Your task to perform on an android device: Open sound settings Image 0: 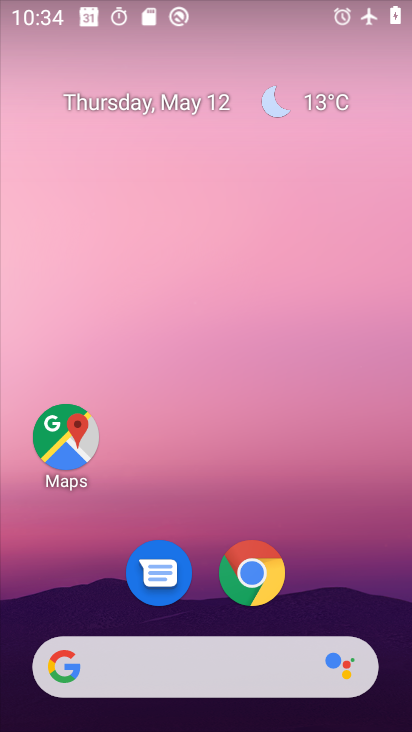
Step 0: click (366, 258)
Your task to perform on an android device: Open sound settings Image 1: 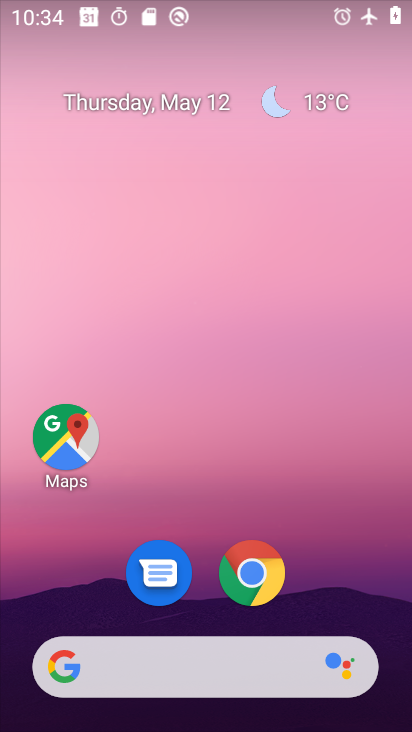
Step 1: drag from (400, 688) to (377, 323)
Your task to perform on an android device: Open sound settings Image 2: 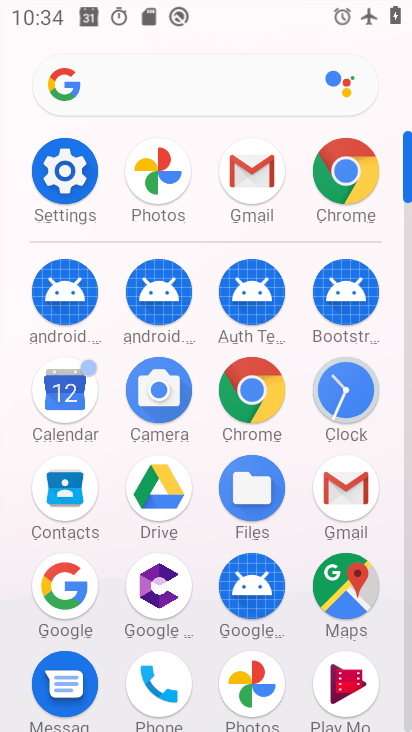
Step 2: click (77, 164)
Your task to perform on an android device: Open sound settings Image 3: 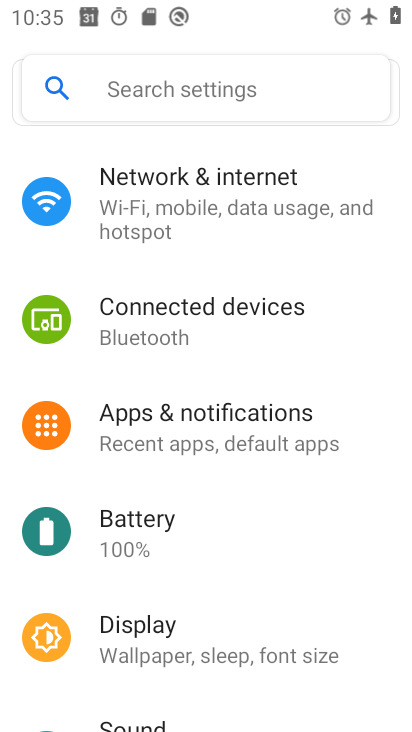
Step 3: drag from (216, 692) to (246, 411)
Your task to perform on an android device: Open sound settings Image 4: 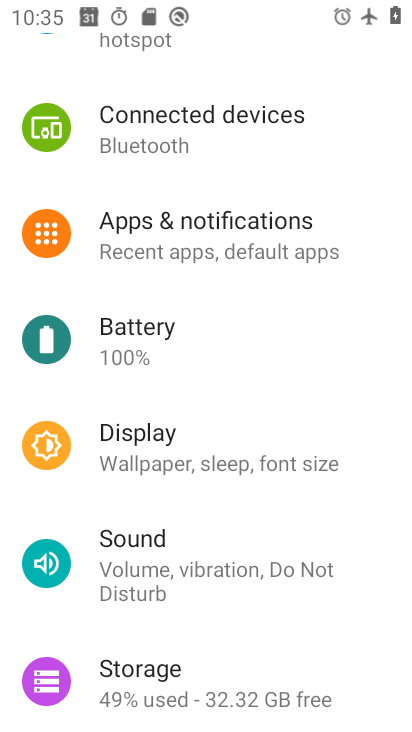
Step 4: click (143, 570)
Your task to perform on an android device: Open sound settings Image 5: 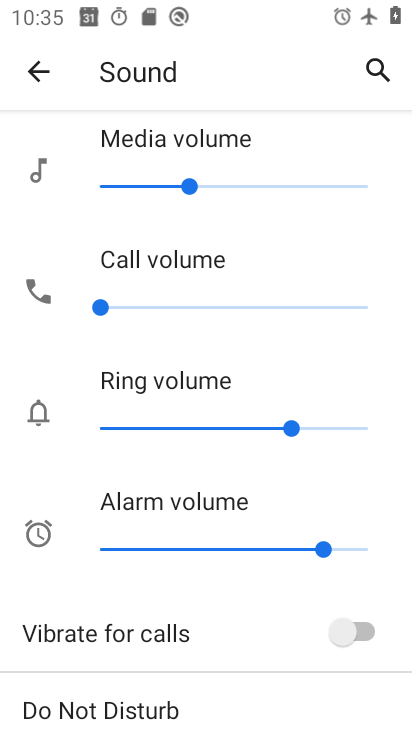
Step 5: task complete